Your task to perform on an android device: set the timer Image 0: 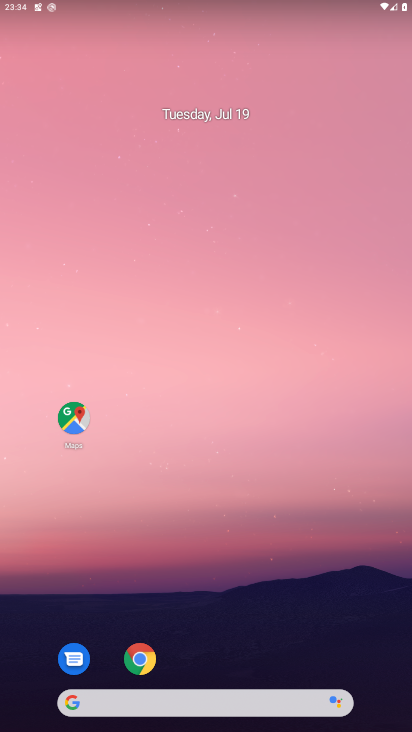
Step 0: drag from (317, 583) to (251, 193)
Your task to perform on an android device: set the timer Image 1: 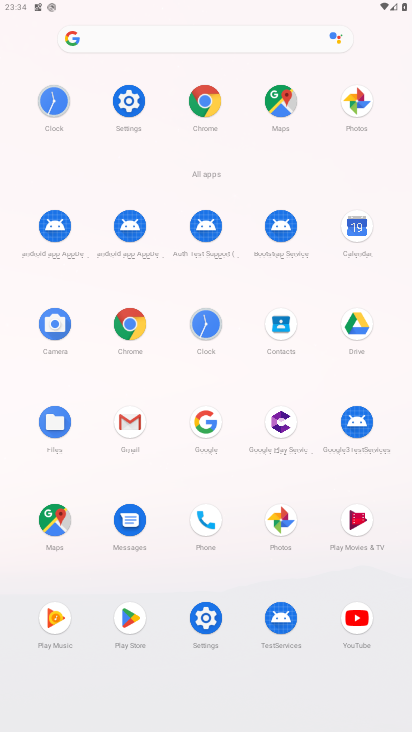
Step 1: click (209, 322)
Your task to perform on an android device: set the timer Image 2: 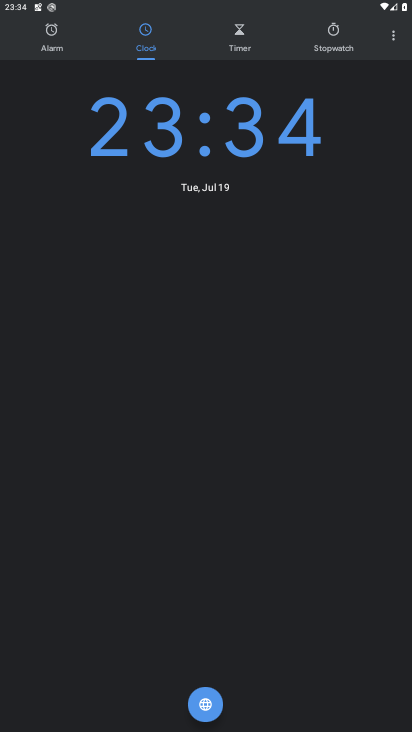
Step 2: click (246, 41)
Your task to perform on an android device: set the timer Image 3: 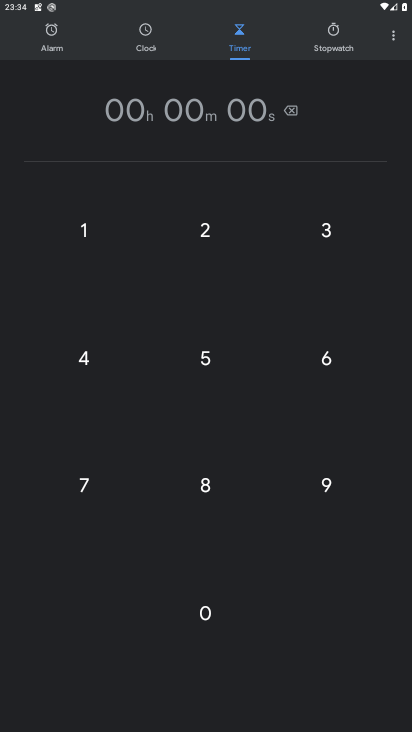
Step 3: click (214, 232)
Your task to perform on an android device: set the timer Image 4: 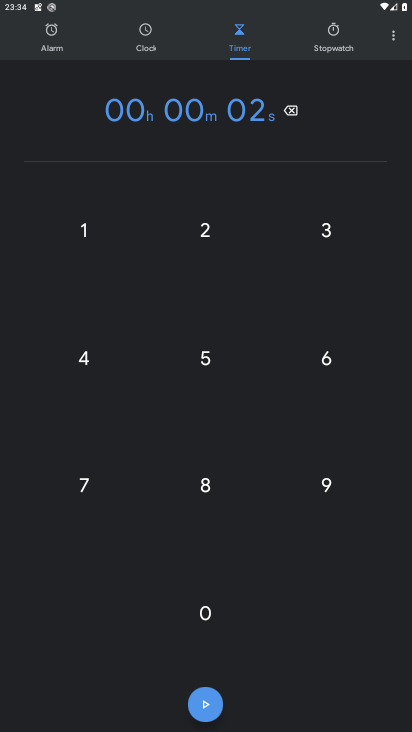
Step 4: click (197, 372)
Your task to perform on an android device: set the timer Image 5: 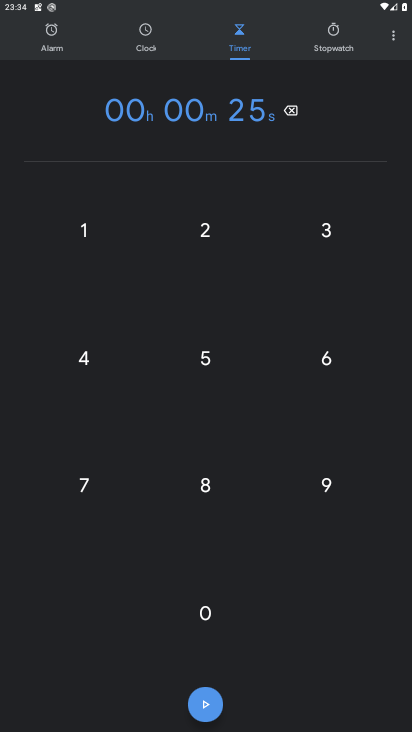
Step 5: click (205, 358)
Your task to perform on an android device: set the timer Image 6: 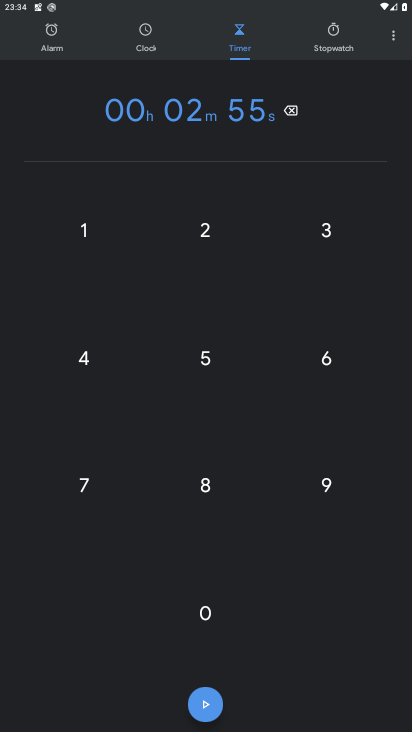
Step 6: click (213, 231)
Your task to perform on an android device: set the timer Image 7: 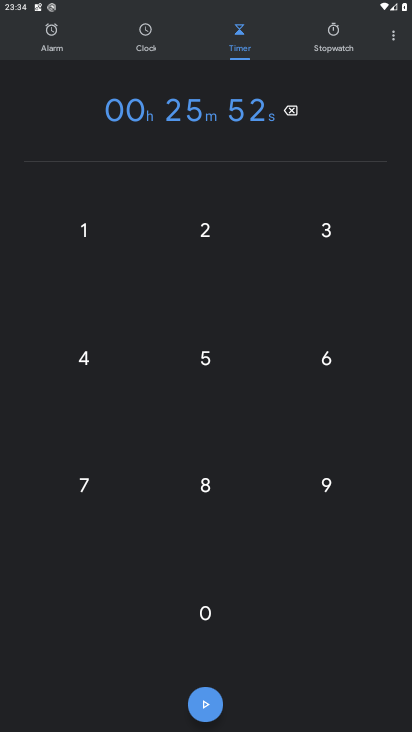
Step 7: click (213, 231)
Your task to perform on an android device: set the timer Image 8: 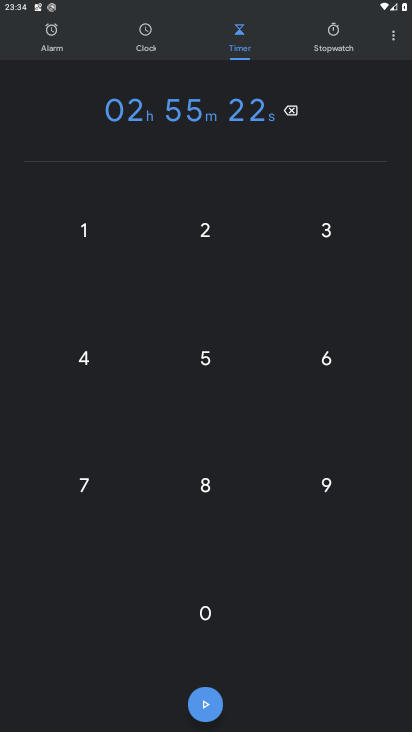
Step 8: click (217, 354)
Your task to perform on an android device: set the timer Image 9: 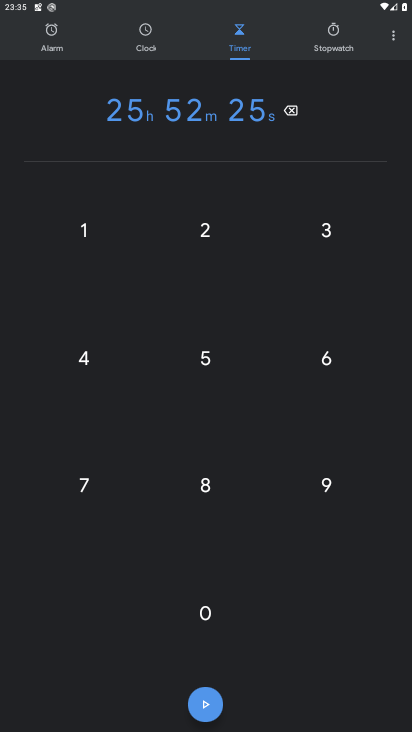
Step 9: click (201, 716)
Your task to perform on an android device: set the timer Image 10: 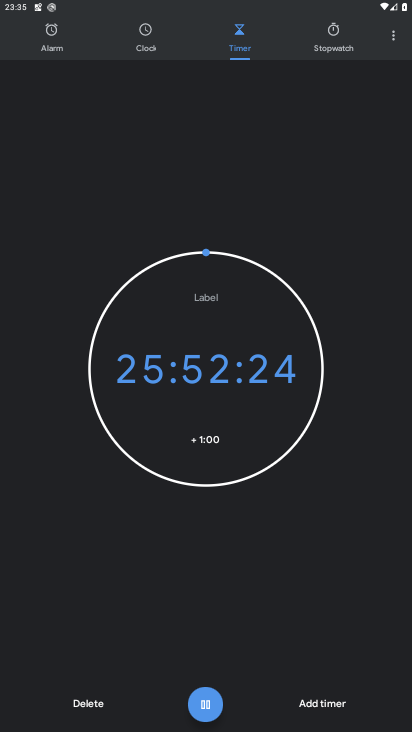
Step 10: task complete